Your task to perform on an android device: Go to Maps Image 0: 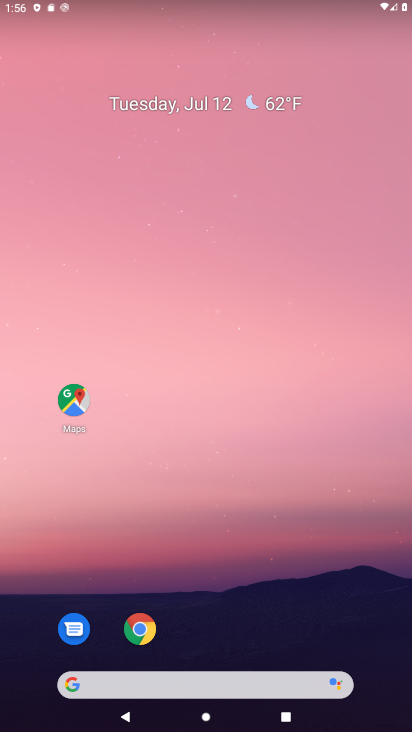
Step 0: press home button
Your task to perform on an android device: Go to Maps Image 1: 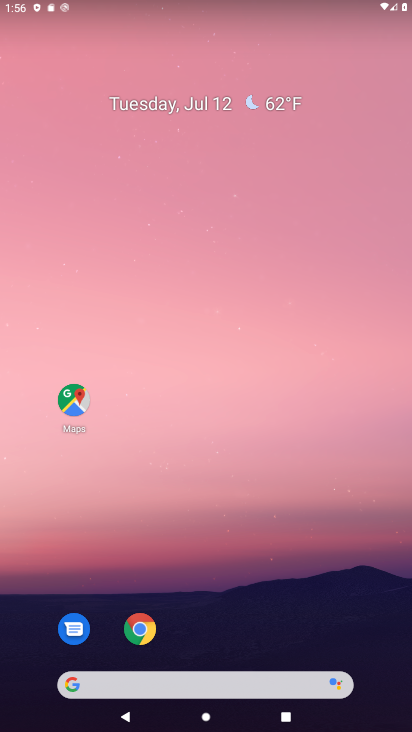
Step 1: click (73, 398)
Your task to perform on an android device: Go to Maps Image 2: 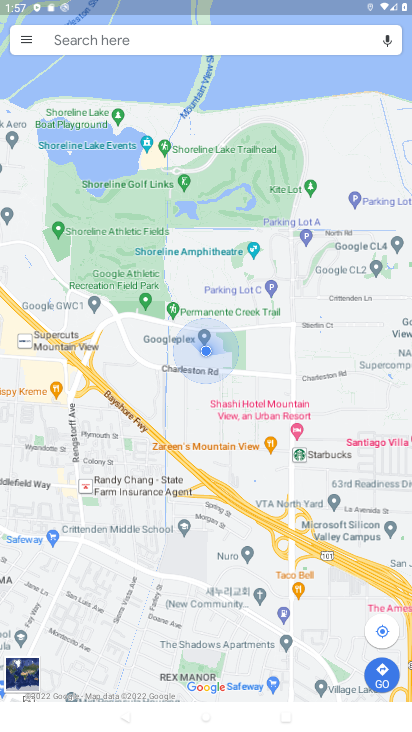
Step 2: task complete